Your task to perform on an android device: Go to Yahoo.com Image 0: 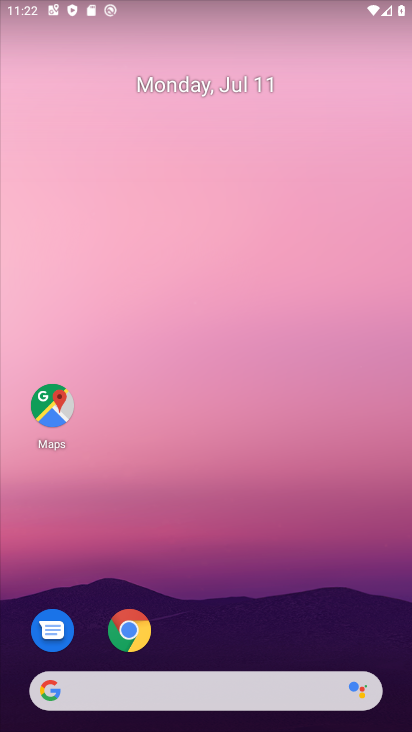
Step 0: drag from (318, 628) to (278, 40)
Your task to perform on an android device: Go to Yahoo.com Image 1: 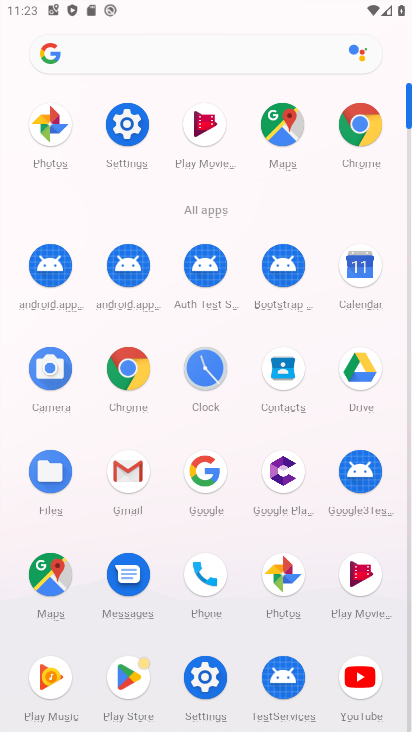
Step 1: click (120, 376)
Your task to perform on an android device: Go to Yahoo.com Image 2: 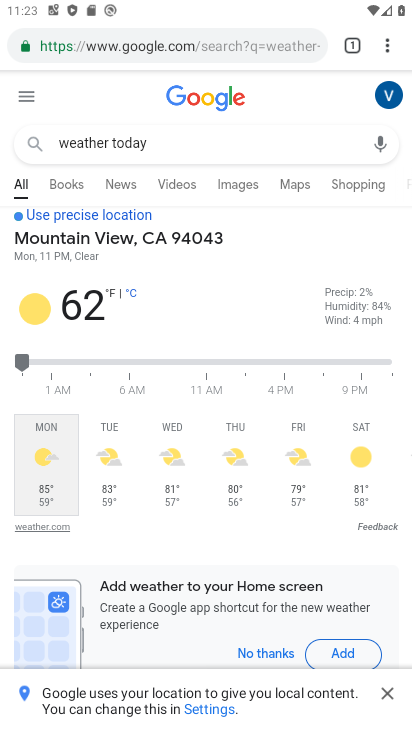
Step 2: click (355, 44)
Your task to perform on an android device: Go to Yahoo.com Image 3: 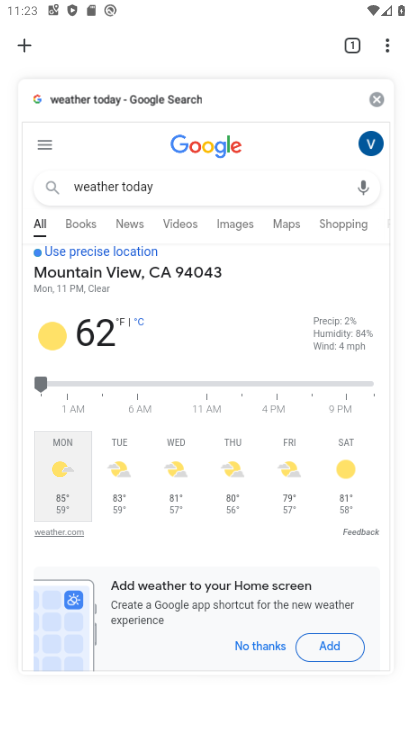
Step 3: click (379, 98)
Your task to perform on an android device: Go to Yahoo.com Image 4: 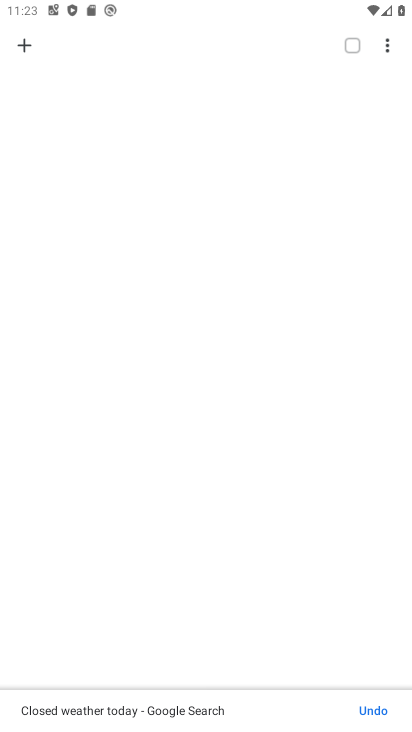
Step 4: click (31, 46)
Your task to perform on an android device: Go to Yahoo.com Image 5: 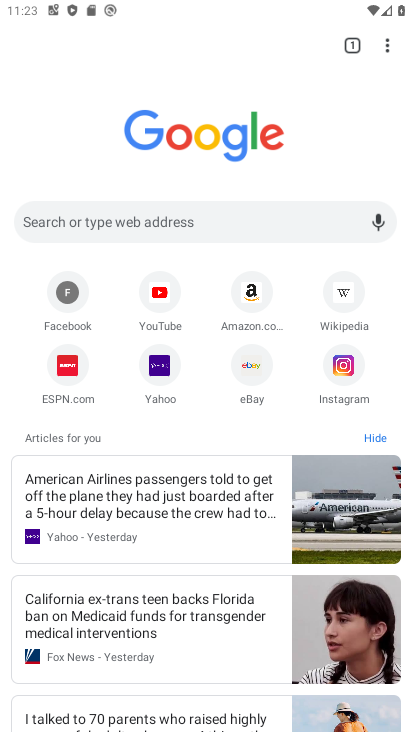
Step 5: click (164, 357)
Your task to perform on an android device: Go to Yahoo.com Image 6: 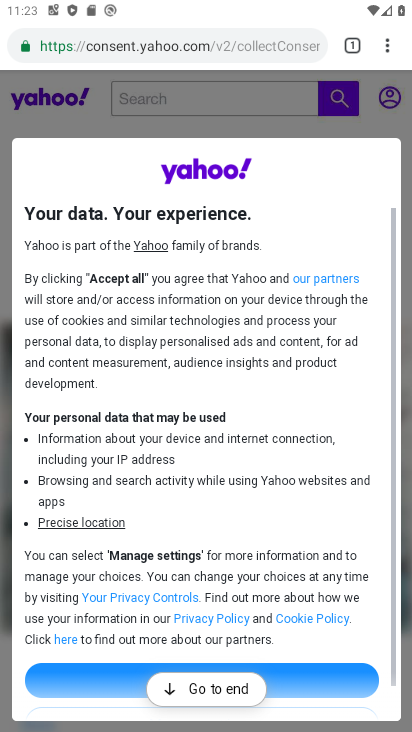
Step 6: click (224, 693)
Your task to perform on an android device: Go to Yahoo.com Image 7: 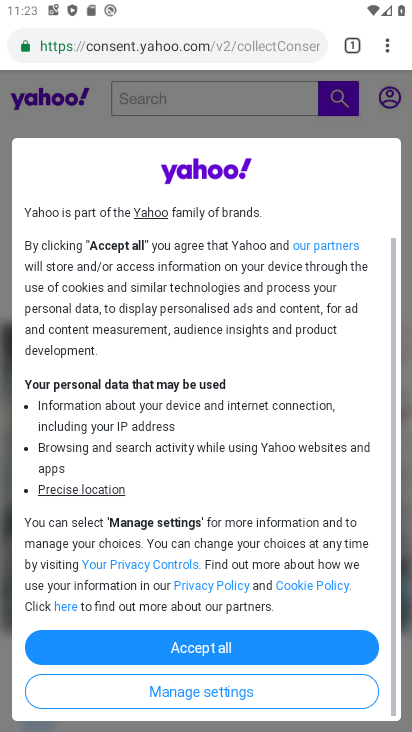
Step 7: task complete